Your task to perform on an android device: Go to Maps Image 0: 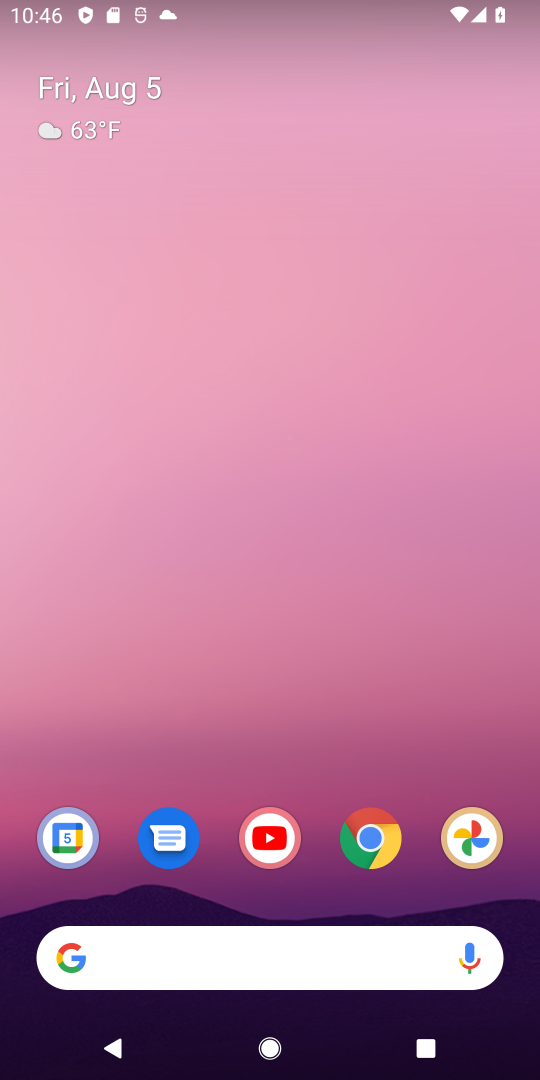
Step 0: drag from (368, 736) to (313, 94)
Your task to perform on an android device: Go to Maps Image 1: 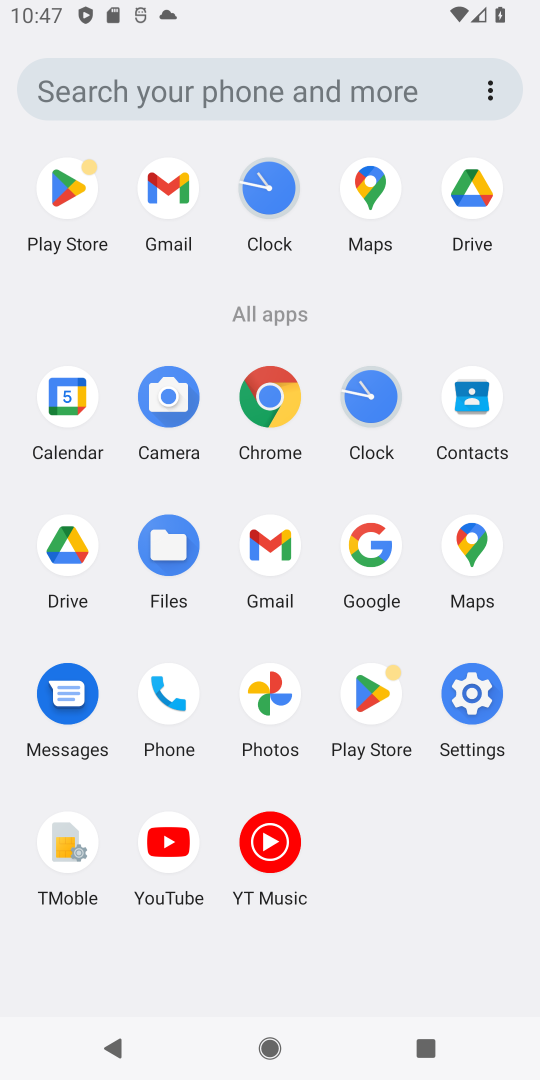
Step 1: click (370, 201)
Your task to perform on an android device: Go to Maps Image 2: 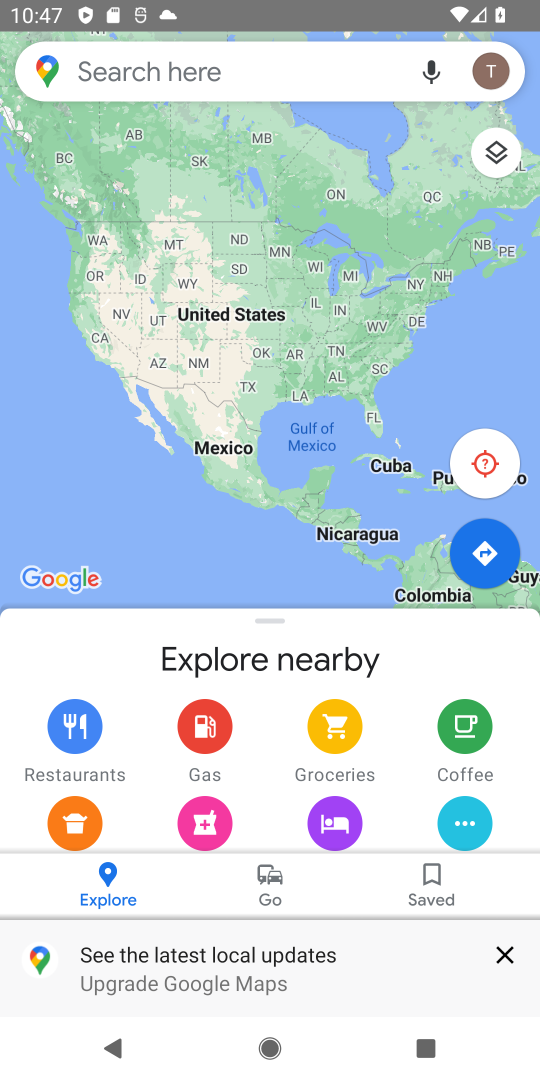
Step 2: task complete